Your task to perform on an android device: change the clock display to digital Image 0: 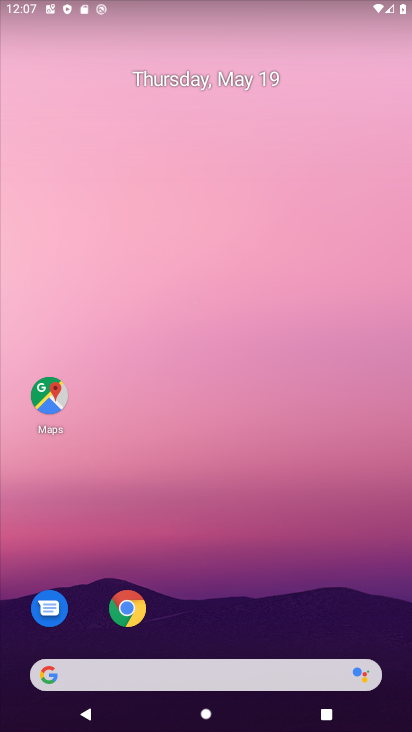
Step 0: drag from (246, 569) to (325, 144)
Your task to perform on an android device: change the clock display to digital Image 1: 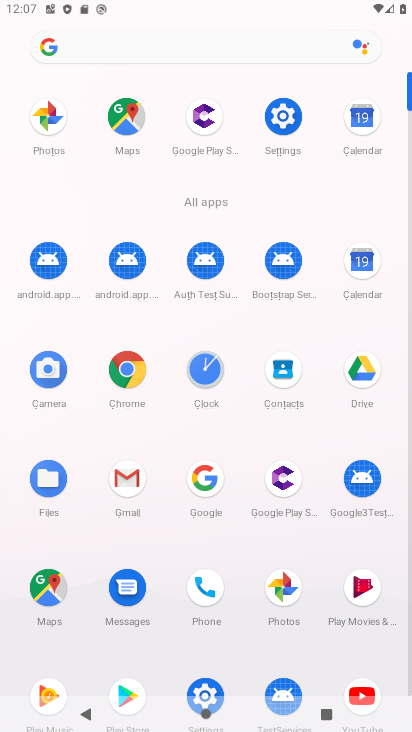
Step 1: click (277, 104)
Your task to perform on an android device: change the clock display to digital Image 2: 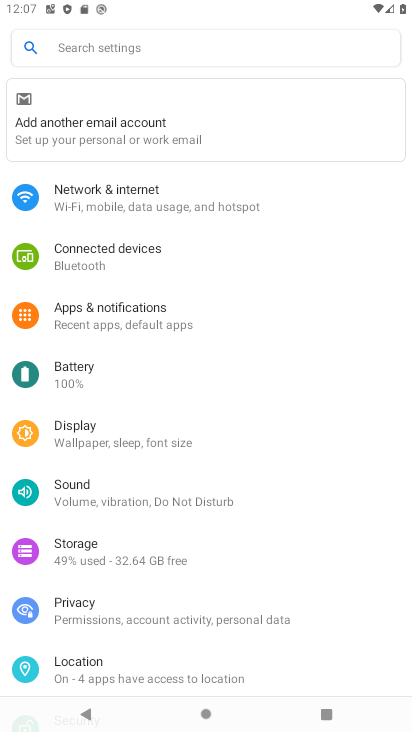
Step 2: press home button
Your task to perform on an android device: change the clock display to digital Image 3: 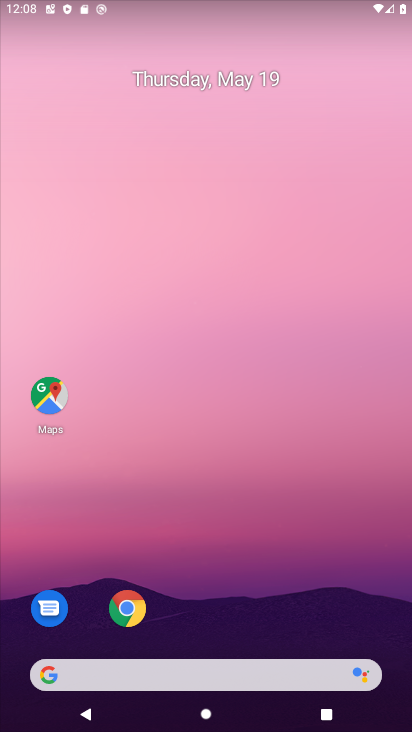
Step 3: drag from (211, 490) to (262, 197)
Your task to perform on an android device: change the clock display to digital Image 4: 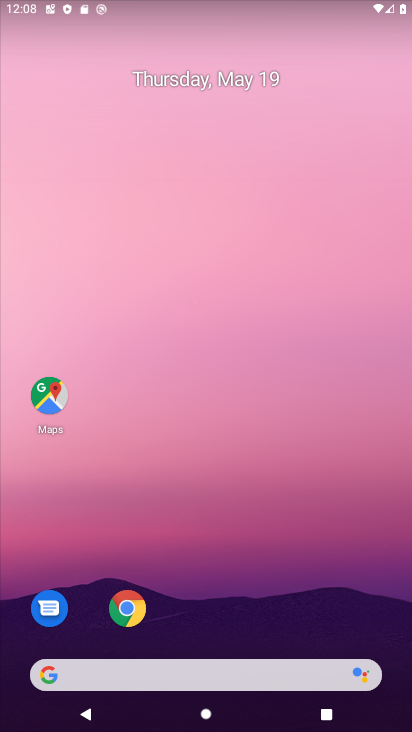
Step 4: drag from (247, 594) to (283, 101)
Your task to perform on an android device: change the clock display to digital Image 5: 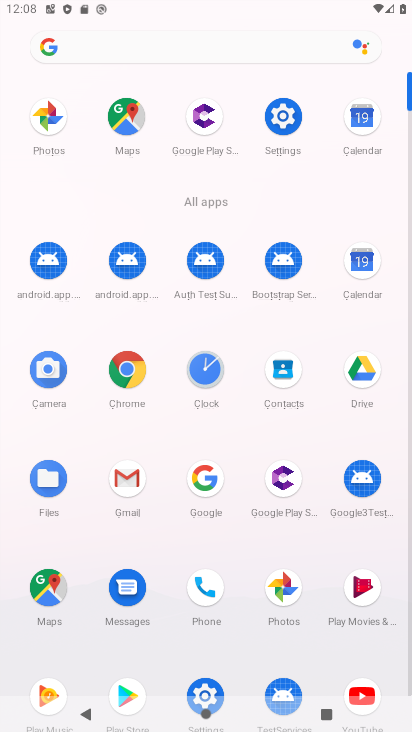
Step 5: click (198, 374)
Your task to perform on an android device: change the clock display to digital Image 6: 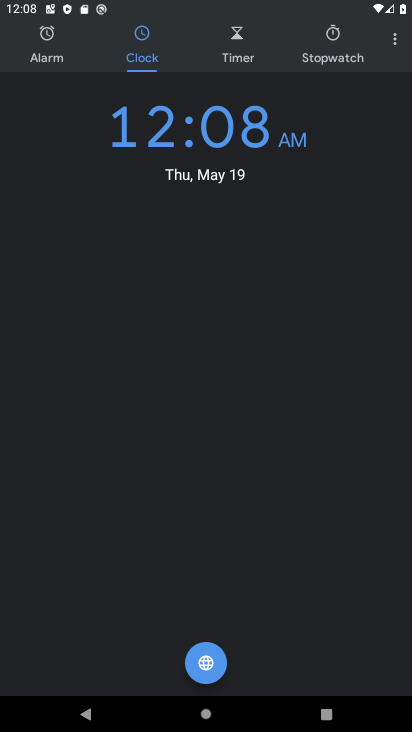
Step 6: click (389, 40)
Your task to perform on an android device: change the clock display to digital Image 7: 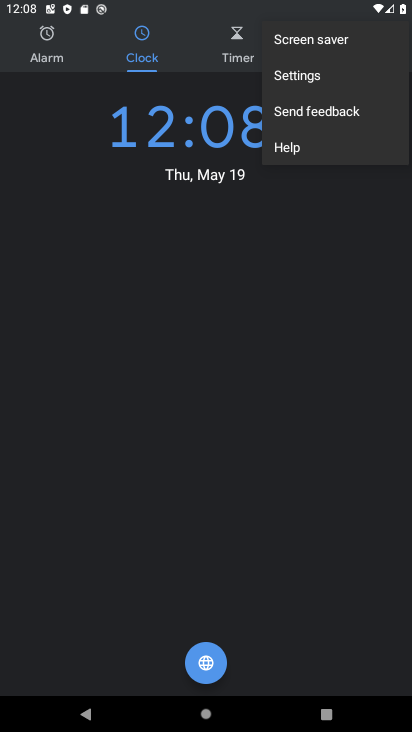
Step 7: click (293, 87)
Your task to perform on an android device: change the clock display to digital Image 8: 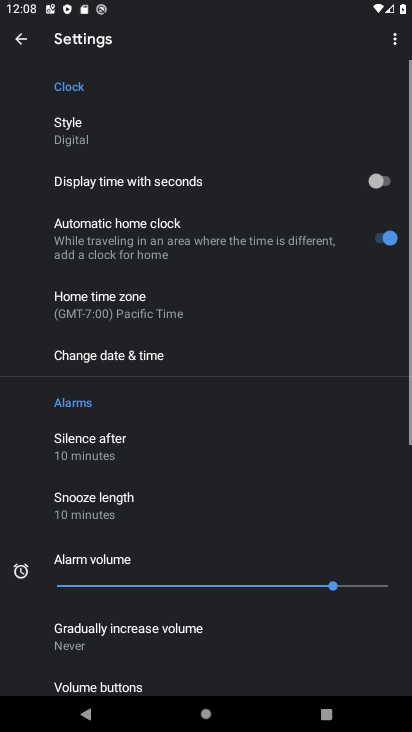
Step 8: click (91, 138)
Your task to perform on an android device: change the clock display to digital Image 9: 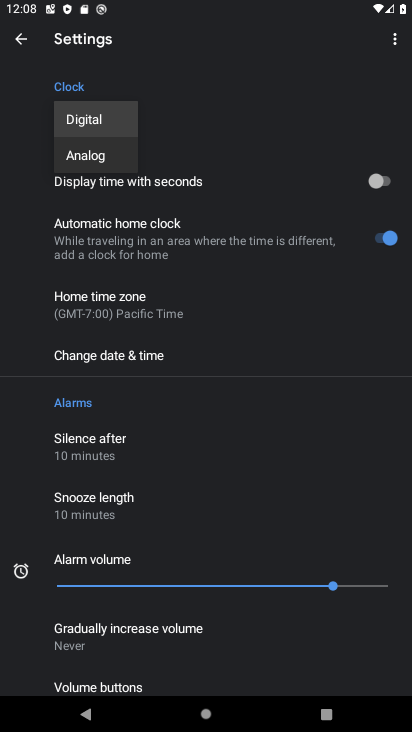
Step 9: click (107, 161)
Your task to perform on an android device: change the clock display to digital Image 10: 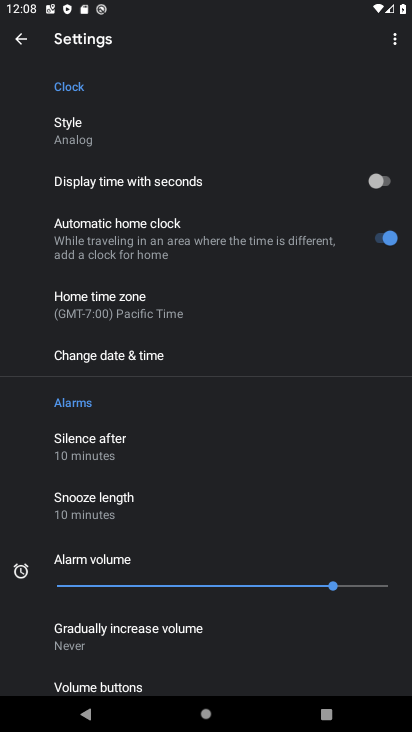
Step 10: task complete